Your task to perform on an android device: Do I have any events tomorrow? Image 0: 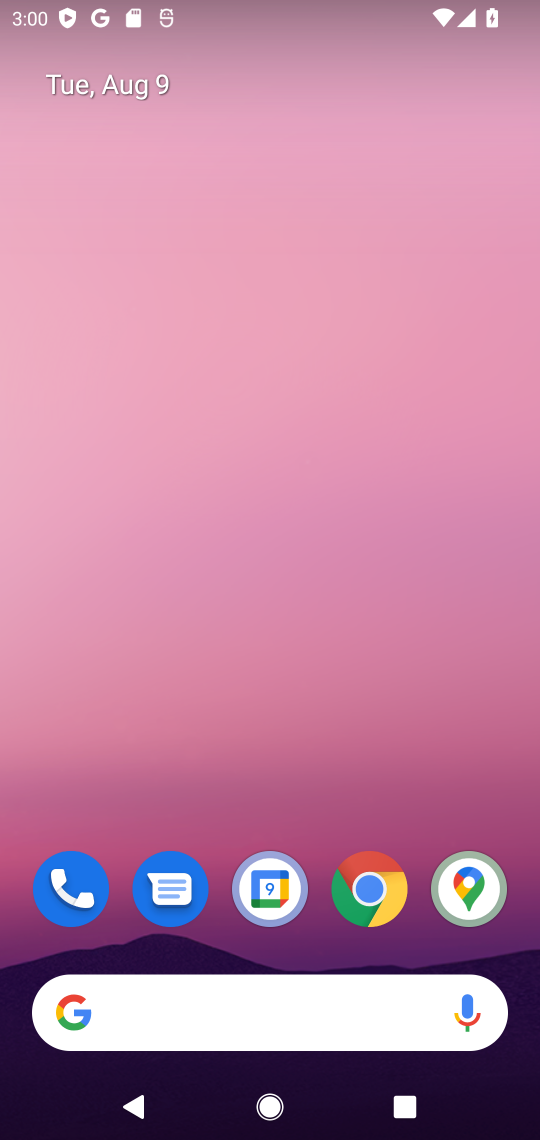
Step 0: drag from (293, 787) to (361, 2)
Your task to perform on an android device: Do I have any events tomorrow? Image 1: 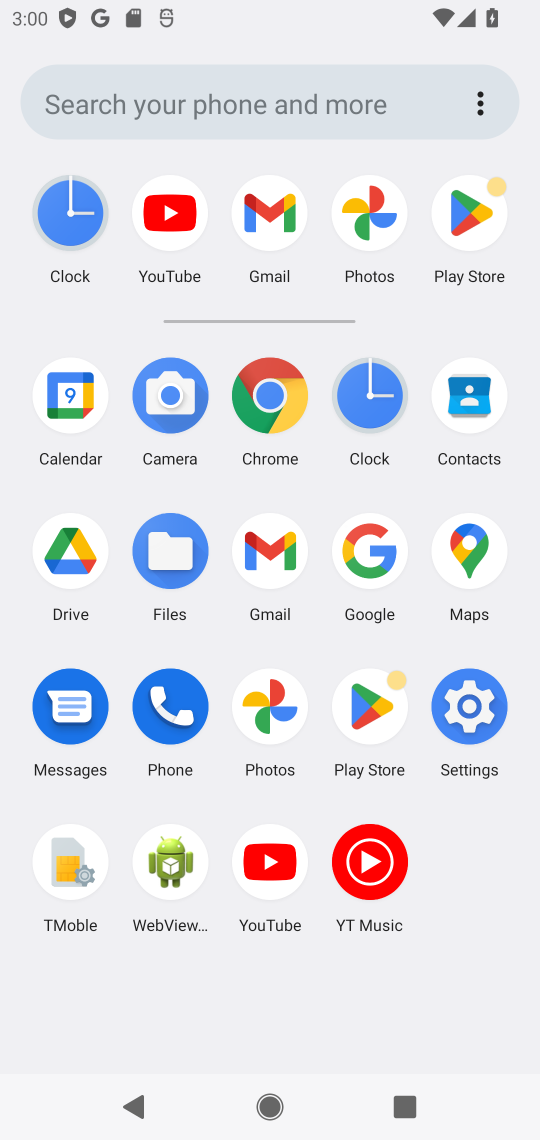
Step 1: click (76, 391)
Your task to perform on an android device: Do I have any events tomorrow? Image 2: 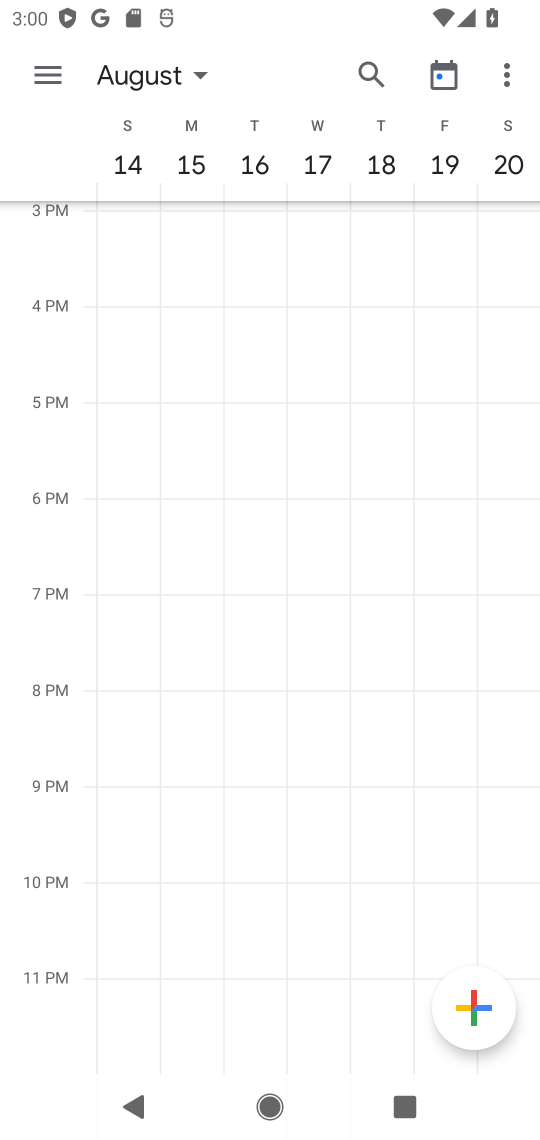
Step 2: task complete